Your task to perform on an android device: turn notification dots off Image 0: 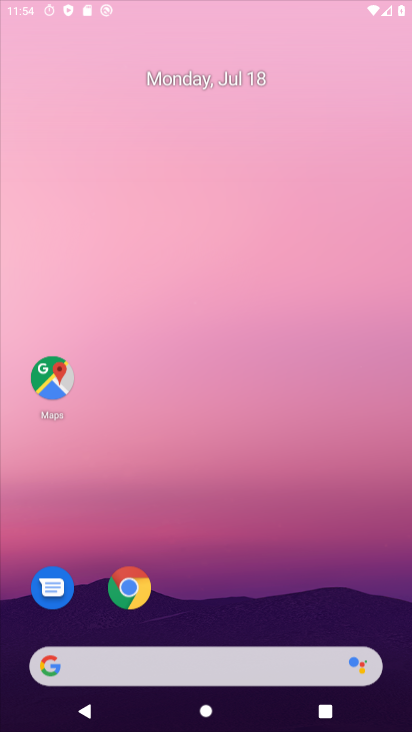
Step 0: click (193, 212)
Your task to perform on an android device: turn notification dots off Image 1: 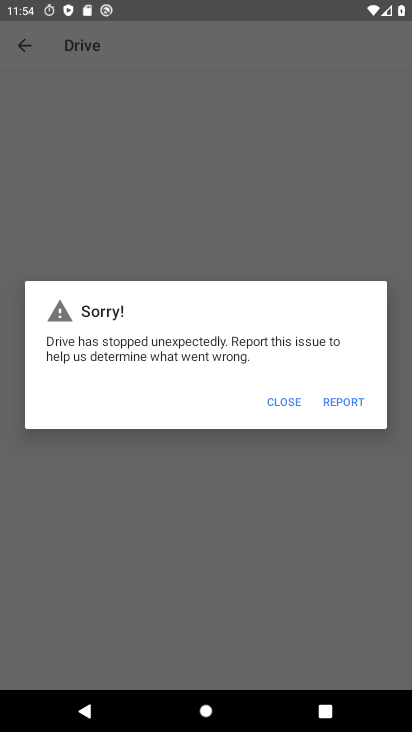
Step 1: click (283, 397)
Your task to perform on an android device: turn notification dots off Image 2: 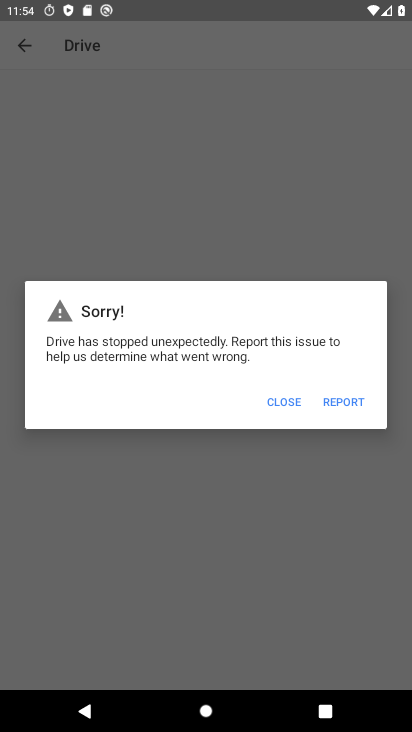
Step 2: click (284, 397)
Your task to perform on an android device: turn notification dots off Image 3: 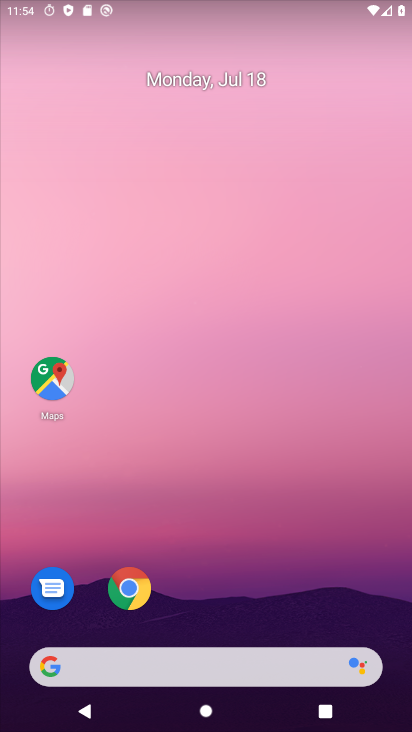
Step 3: drag from (235, 599) to (172, 136)
Your task to perform on an android device: turn notification dots off Image 4: 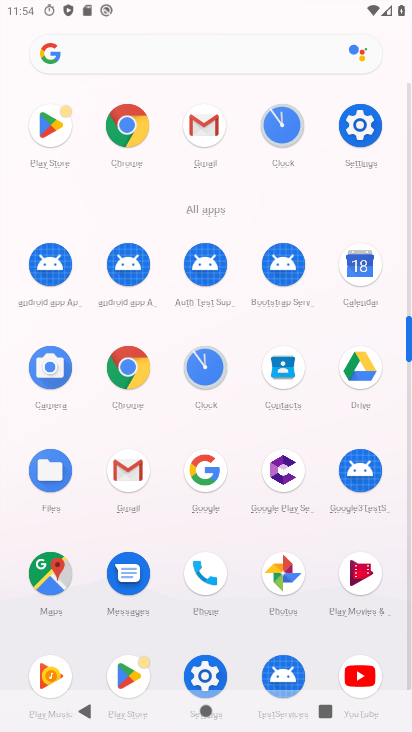
Step 4: click (355, 127)
Your task to perform on an android device: turn notification dots off Image 5: 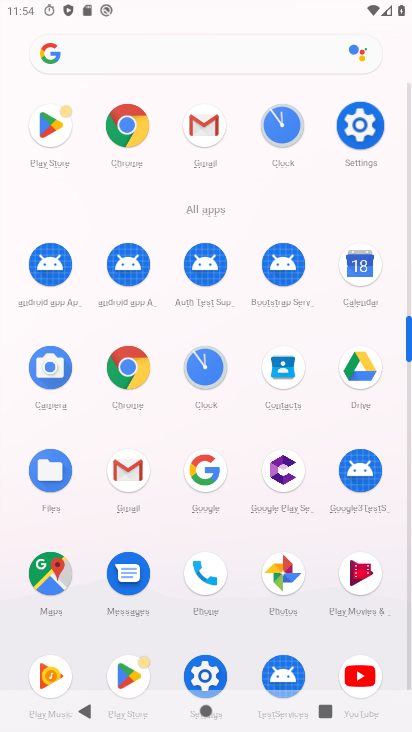
Step 5: click (355, 127)
Your task to perform on an android device: turn notification dots off Image 6: 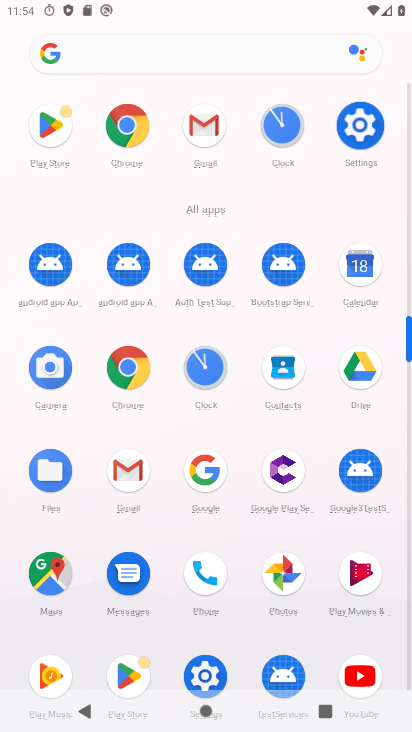
Step 6: click (355, 127)
Your task to perform on an android device: turn notification dots off Image 7: 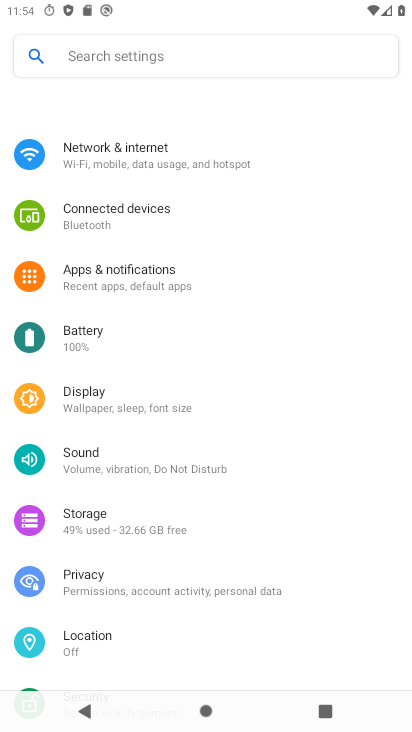
Step 7: click (355, 127)
Your task to perform on an android device: turn notification dots off Image 8: 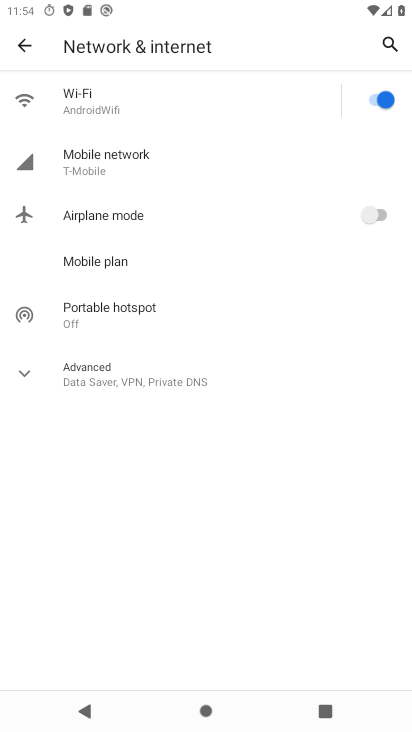
Step 8: click (19, 44)
Your task to perform on an android device: turn notification dots off Image 9: 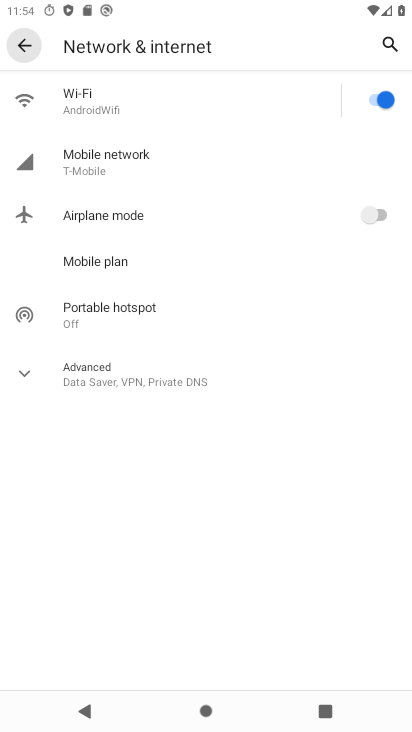
Step 9: click (24, 50)
Your task to perform on an android device: turn notification dots off Image 10: 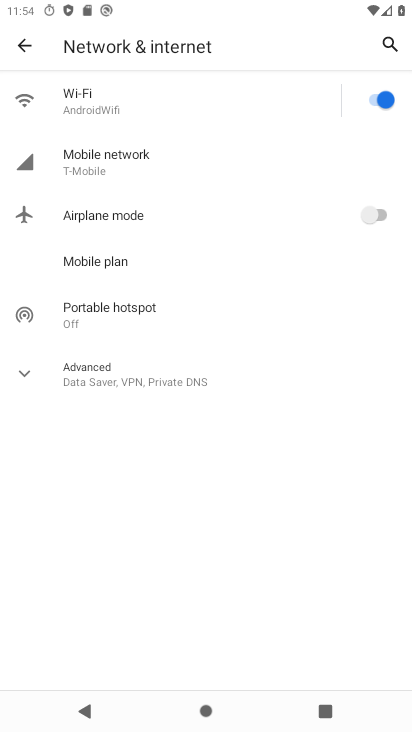
Step 10: click (25, 50)
Your task to perform on an android device: turn notification dots off Image 11: 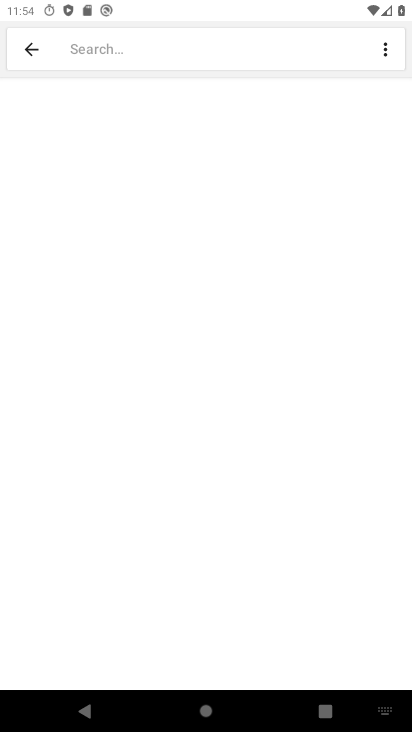
Step 11: click (25, 54)
Your task to perform on an android device: turn notification dots off Image 12: 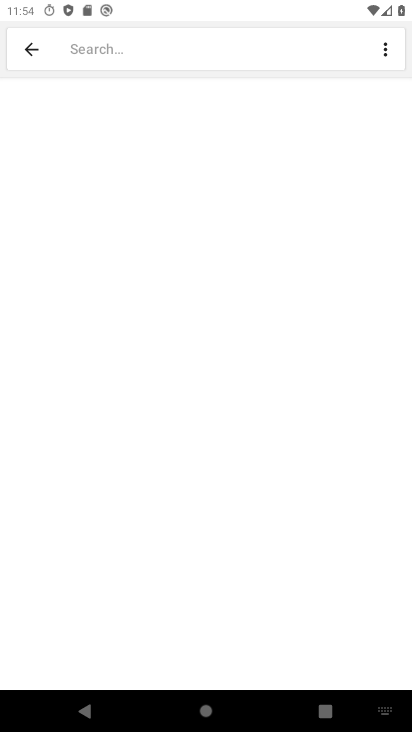
Step 12: click (32, 47)
Your task to perform on an android device: turn notification dots off Image 13: 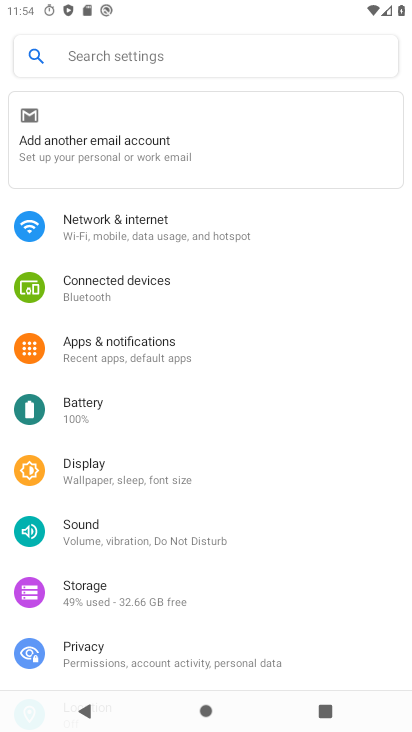
Step 13: click (107, 250)
Your task to perform on an android device: turn notification dots off Image 14: 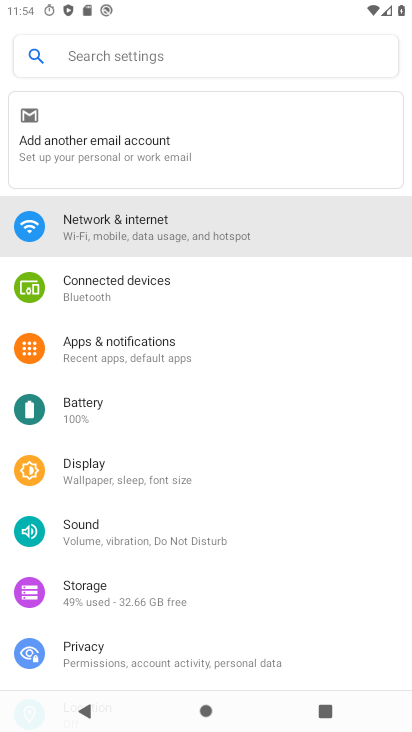
Step 14: click (94, 351)
Your task to perform on an android device: turn notification dots off Image 15: 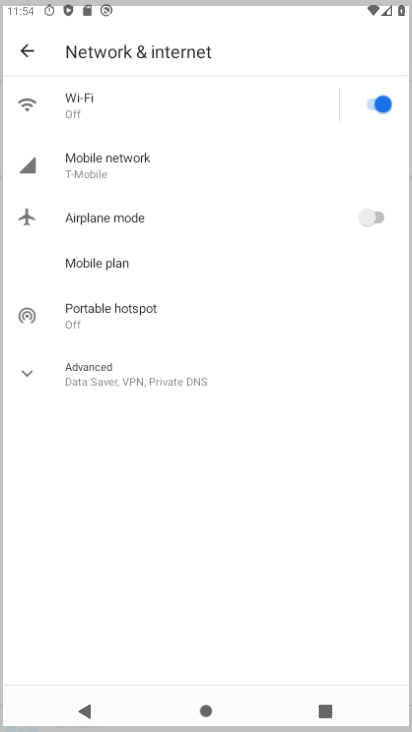
Step 15: click (96, 346)
Your task to perform on an android device: turn notification dots off Image 16: 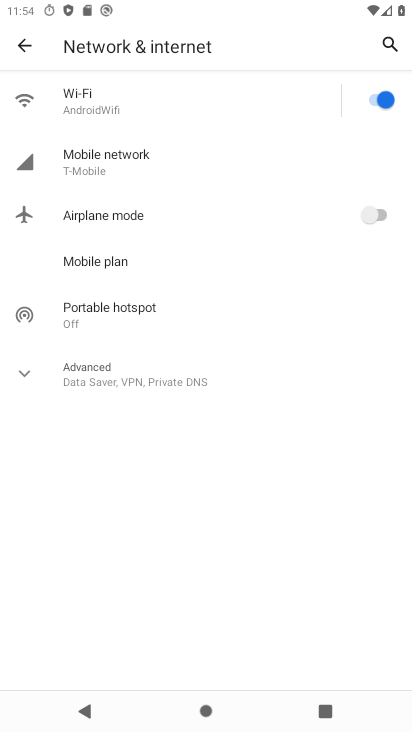
Step 16: click (104, 361)
Your task to perform on an android device: turn notification dots off Image 17: 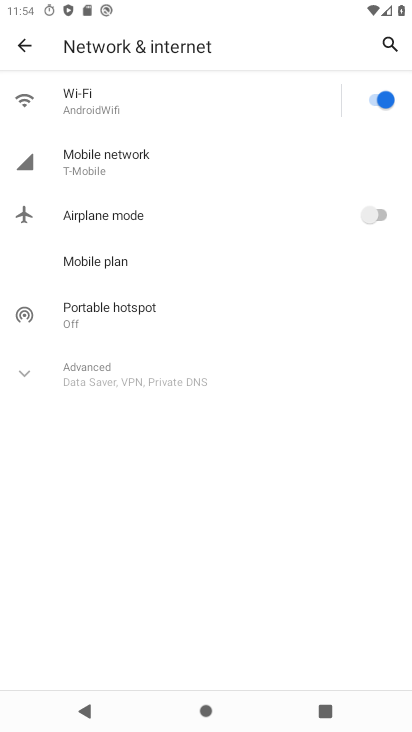
Step 17: click (106, 361)
Your task to perform on an android device: turn notification dots off Image 18: 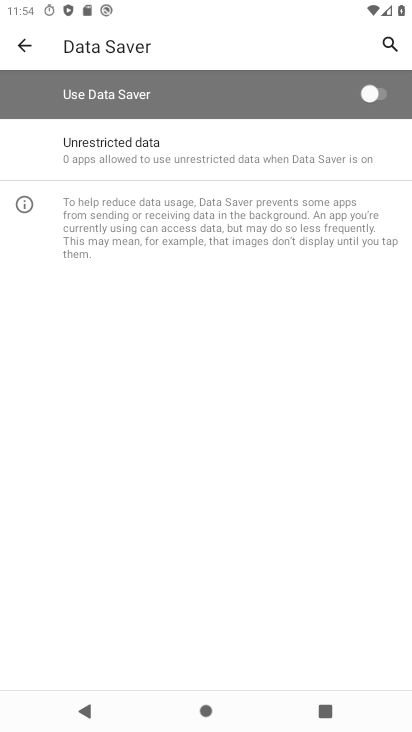
Step 18: click (12, 45)
Your task to perform on an android device: turn notification dots off Image 19: 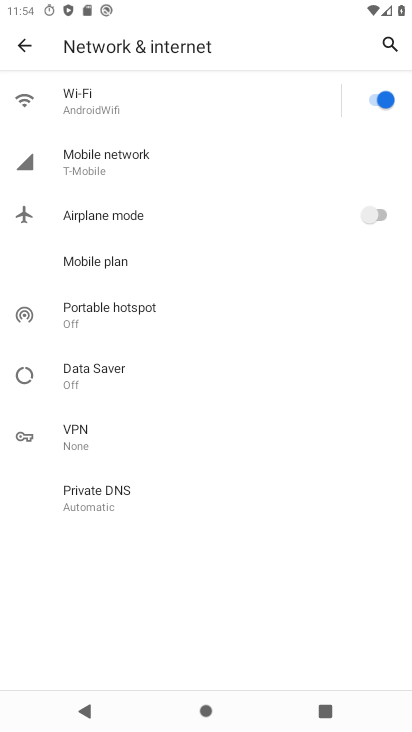
Step 19: click (29, 32)
Your task to perform on an android device: turn notification dots off Image 20: 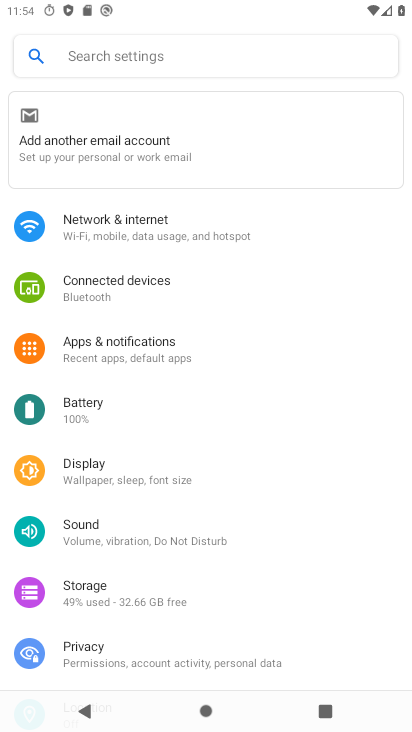
Step 20: click (116, 347)
Your task to perform on an android device: turn notification dots off Image 21: 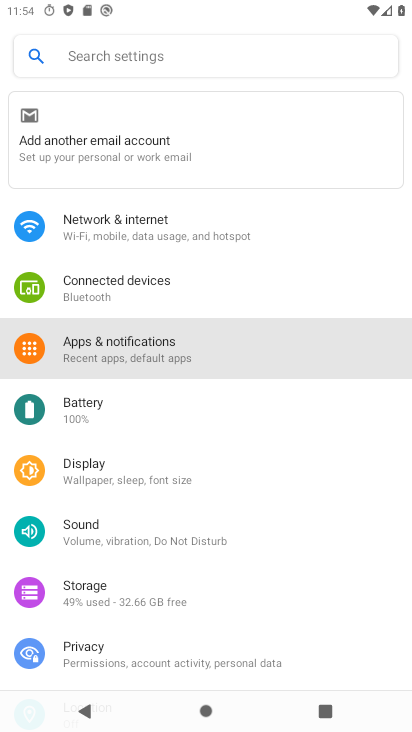
Step 21: click (120, 349)
Your task to perform on an android device: turn notification dots off Image 22: 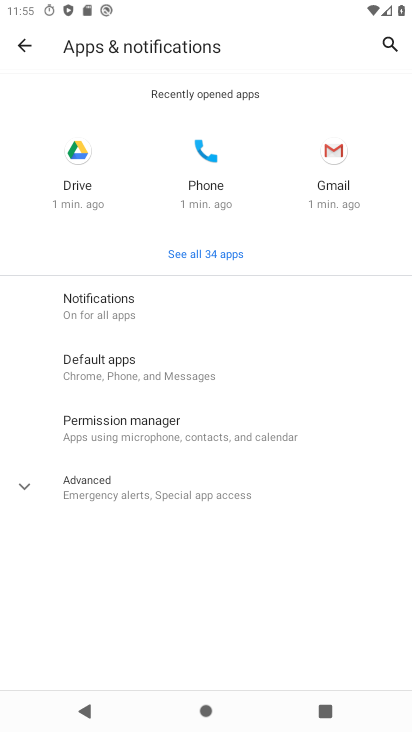
Step 22: click (92, 309)
Your task to perform on an android device: turn notification dots off Image 23: 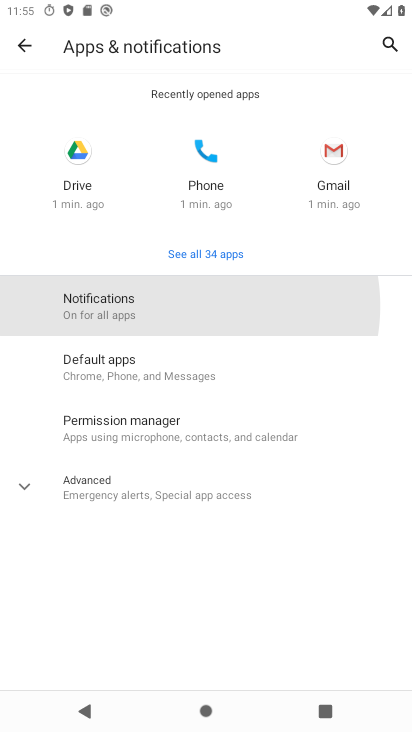
Step 23: click (92, 310)
Your task to perform on an android device: turn notification dots off Image 24: 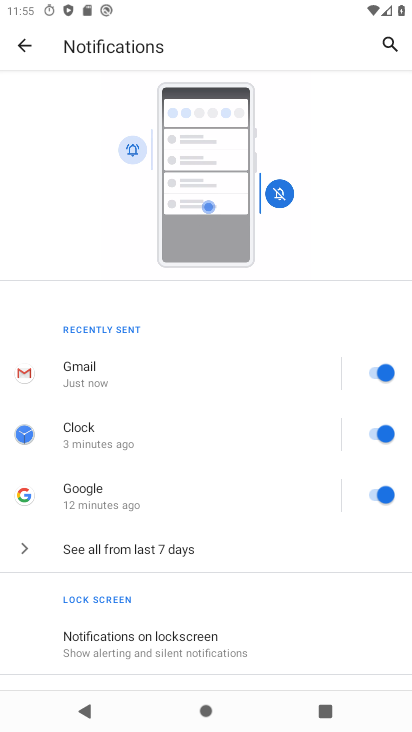
Step 24: drag from (195, 483) to (169, 205)
Your task to perform on an android device: turn notification dots off Image 25: 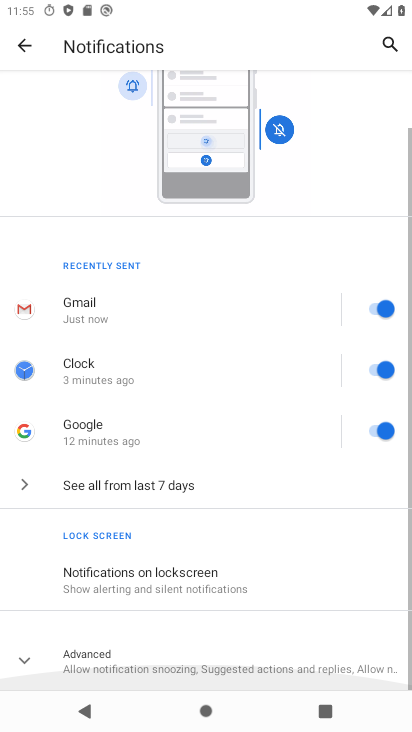
Step 25: drag from (186, 373) to (209, 152)
Your task to perform on an android device: turn notification dots off Image 26: 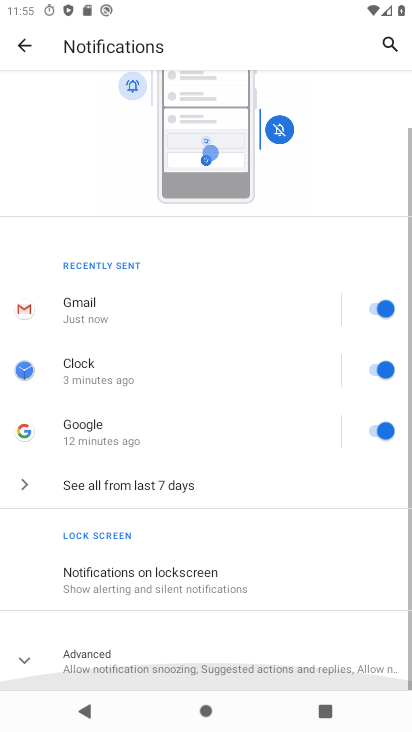
Step 26: drag from (208, 367) to (208, 193)
Your task to perform on an android device: turn notification dots off Image 27: 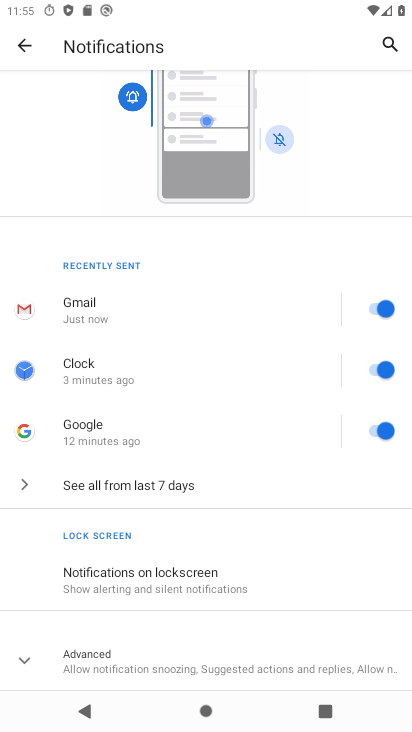
Step 27: click (97, 661)
Your task to perform on an android device: turn notification dots off Image 28: 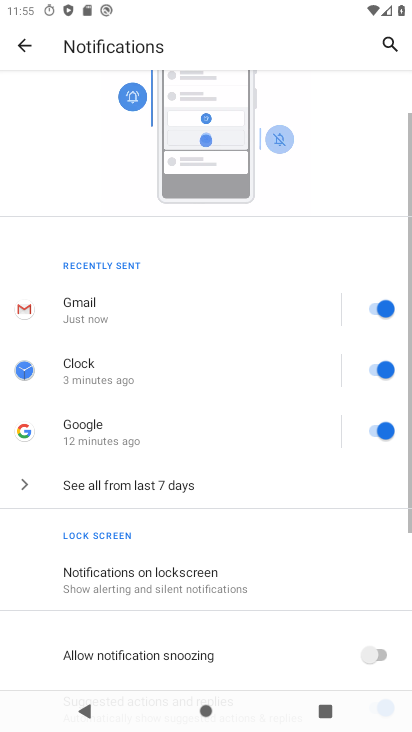
Step 28: drag from (261, 613) to (263, 314)
Your task to perform on an android device: turn notification dots off Image 29: 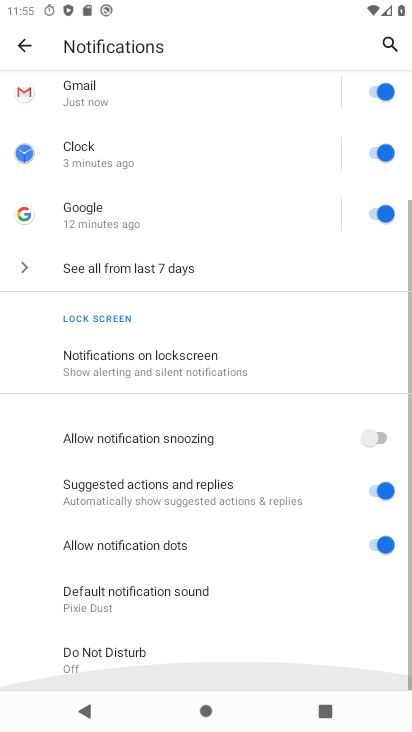
Step 29: drag from (258, 363) to (231, 66)
Your task to perform on an android device: turn notification dots off Image 30: 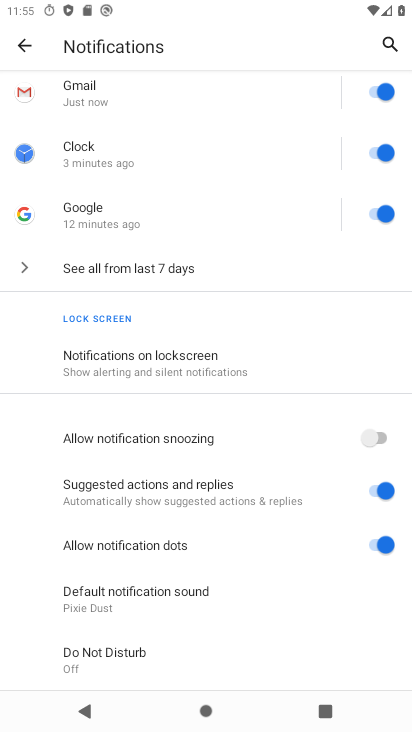
Step 30: click (386, 538)
Your task to perform on an android device: turn notification dots off Image 31: 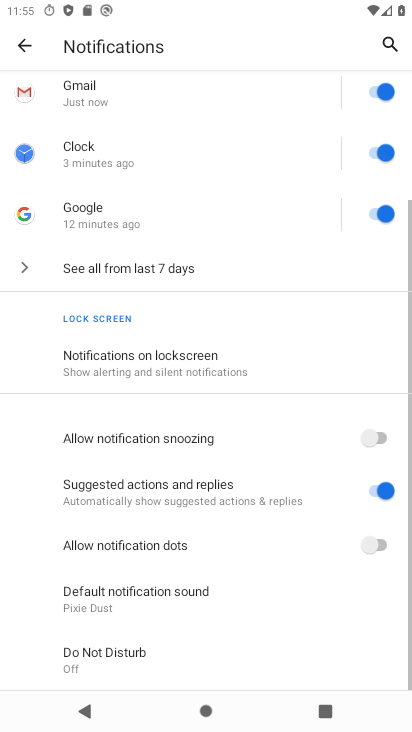
Step 31: task complete